Your task to perform on an android device: check battery use Image 0: 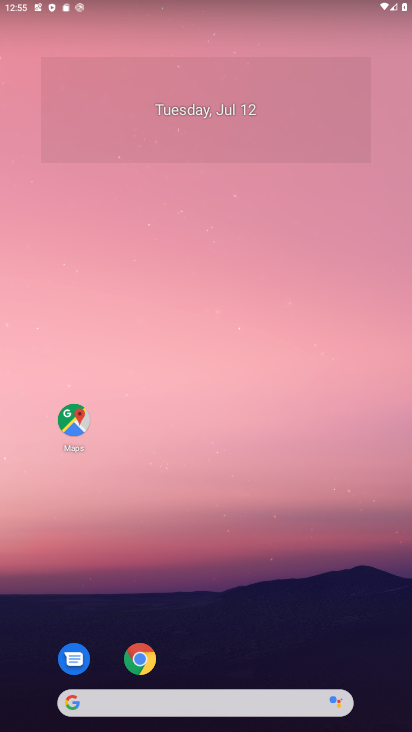
Step 0: drag from (204, 653) to (209, 298)
Your task to perform on an android device: check battery use Image 1: 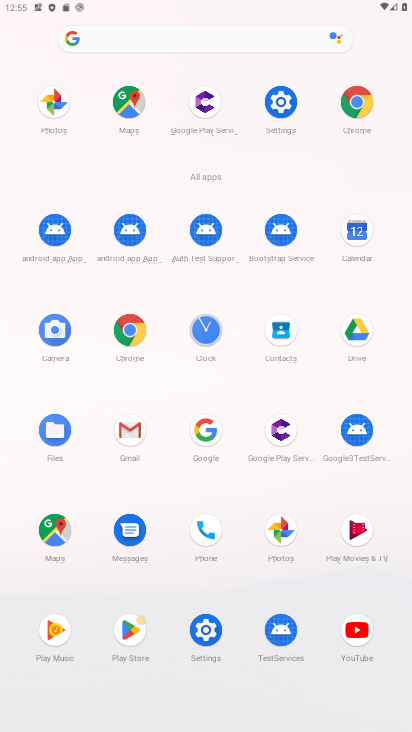
Step 1: click (285, 106)
Your task to perform on an android device: check battery use Image 2: 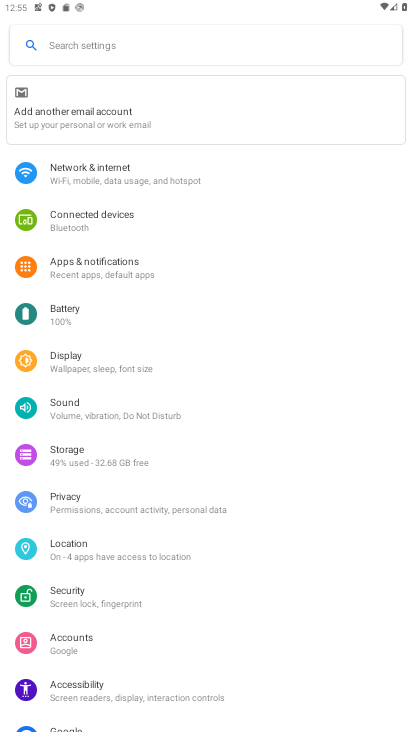
Step 2: click (95, 320)
Your task to perform on an android device: check battery use Image 3: 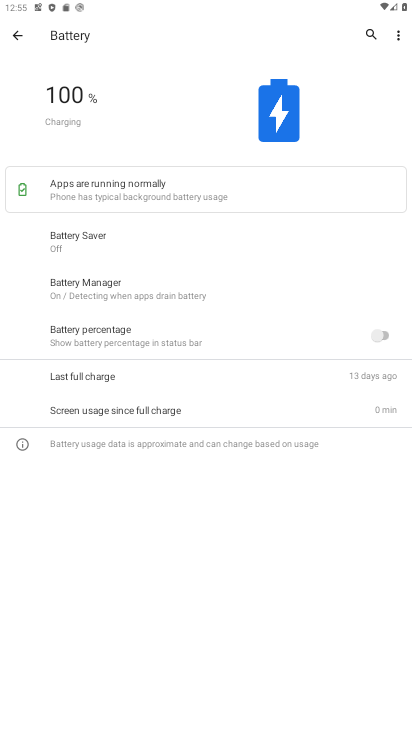
Step 3: click (396, 42)
Your task to perform on an android device: check battery use Image 4: 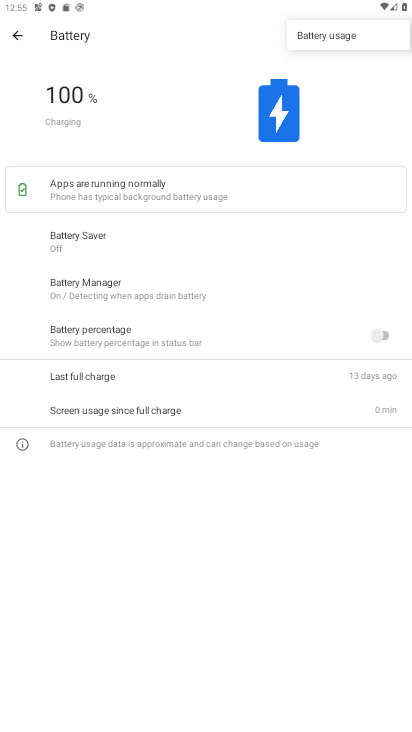
Step 4: click (336, 38)
Your task to perform on an android device: check battery use Image 5: 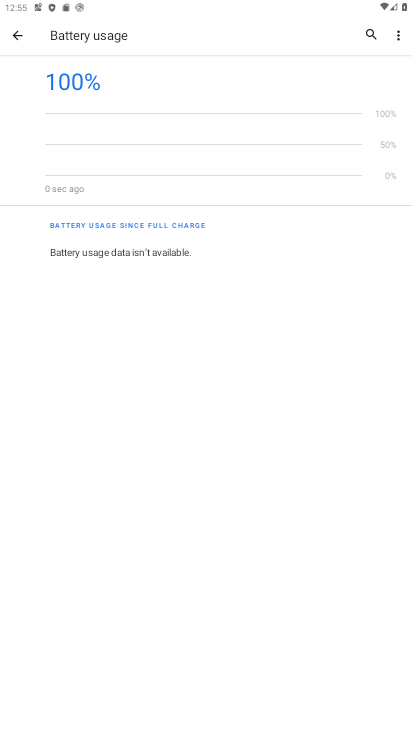
Step 5: task complete